Your task to perform on an android device: allow cookies in the chrome app Image 0: 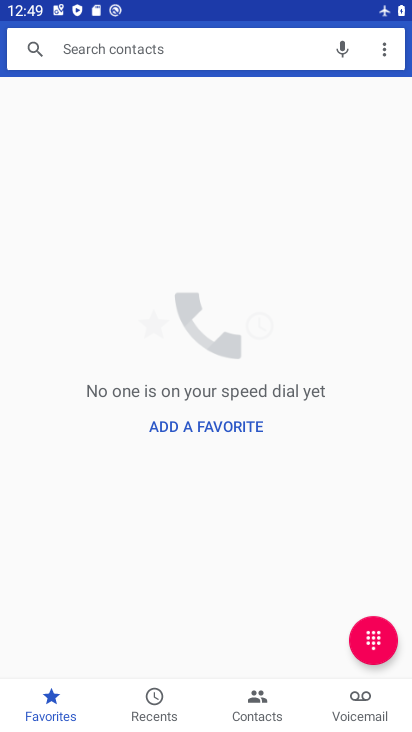
Step 0: press home button
Your task to perform on an android device: allow cookies in the chrome app Image 1: 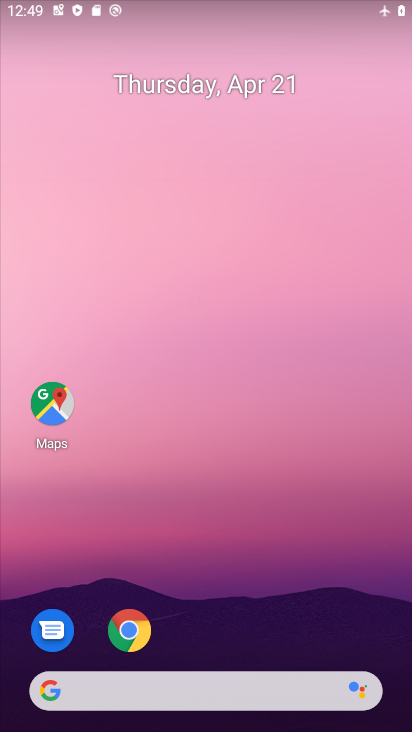
Step 1: click (140, 628)
Your task to perform on an android device: allow cookies in the chrome app Image 2: 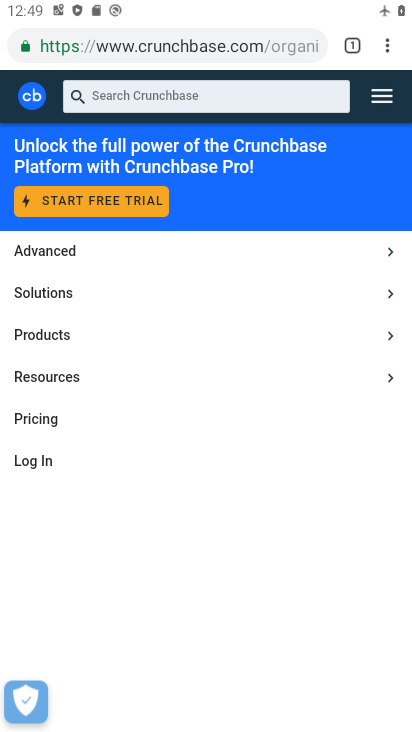
Step 2: click (387, 47)
Your task to perform on an android device: allow cookies in the chrome app Image 3: 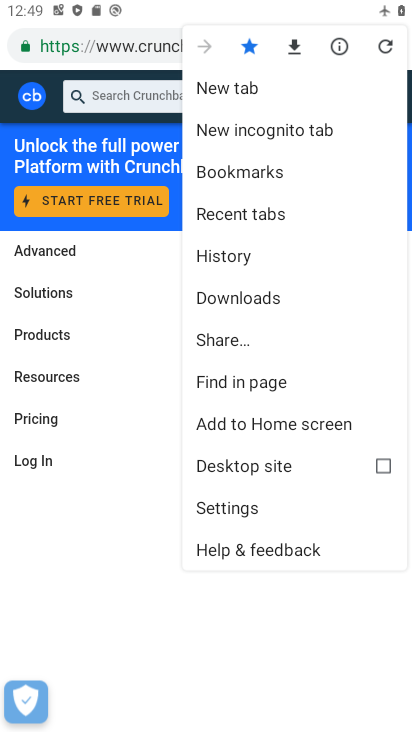
Step 3: click (263, 508)
Your task to perform on an android device: allow cookies in the chrome app Image 4: 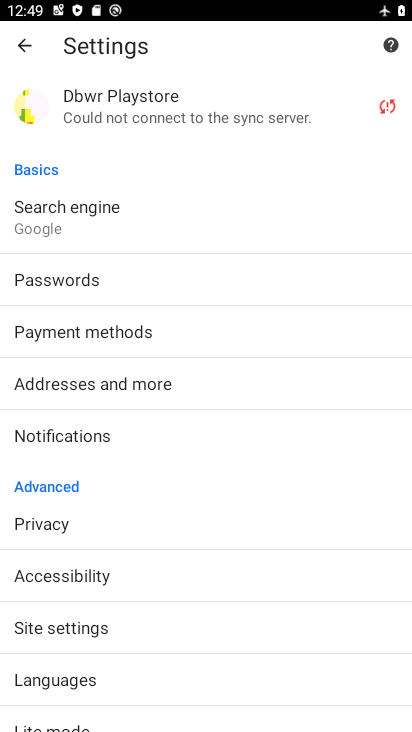
Step 4: click (248, 634)
Your task to perform on an android device: allow cookies in the chrome app Image 5: 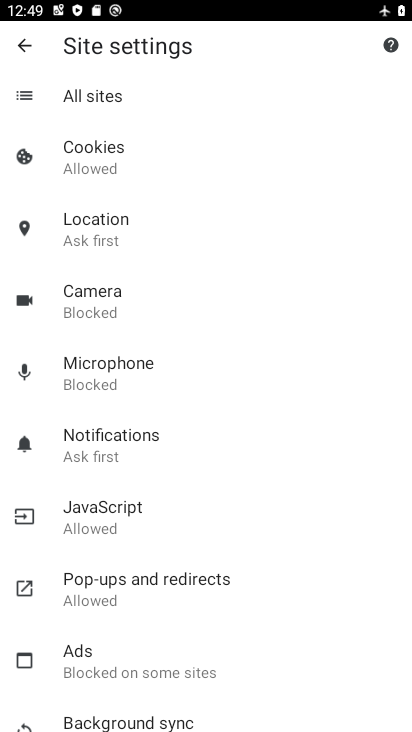
Step 5: task complete